Your task to perform on an android device: change timer sound Image 0: 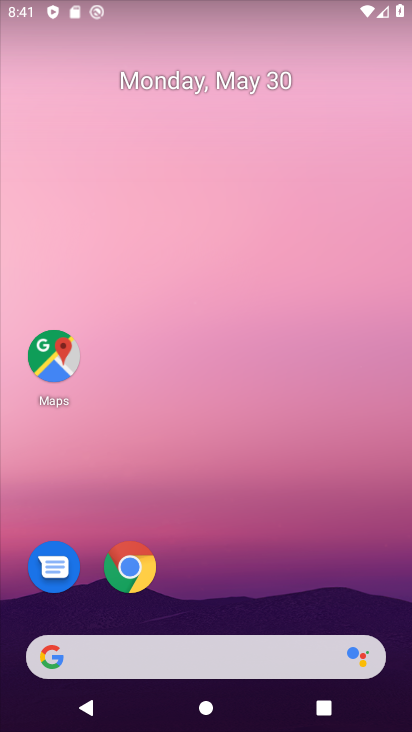
Step 0: drag from (218, 619) to (210, 53)
Your task to perform on an android device: change timer sound Image 1: 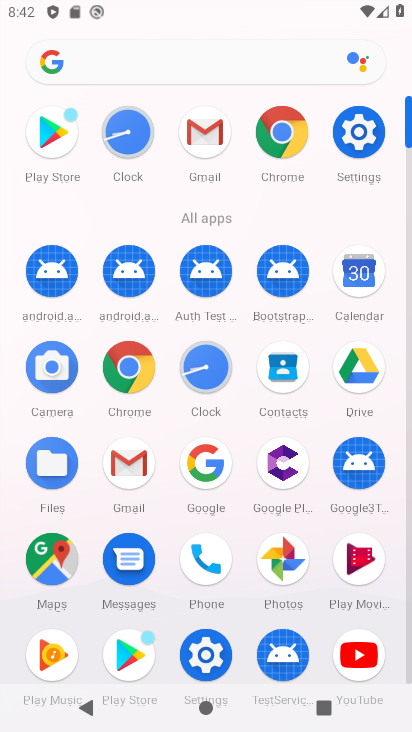
Step 1: click (122, 139)
Your task to perform on an android device: change timer sound Image 2: 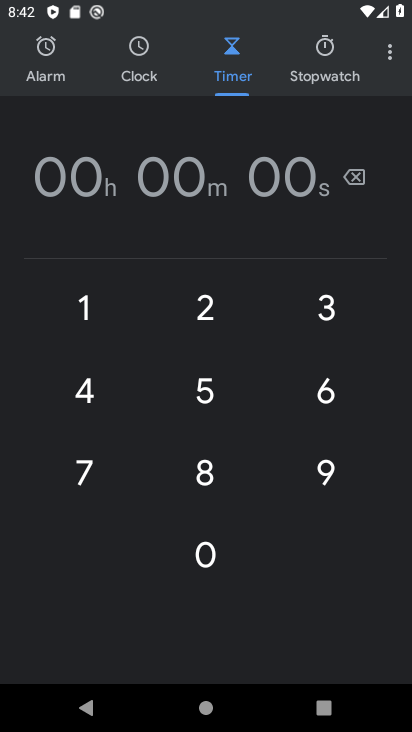
Step 2: click (404, 49)
Your task to perform on an android device: change timer sound Image 3: 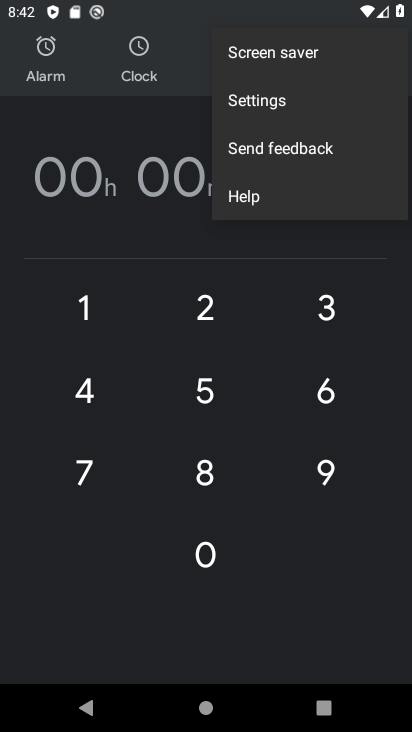
Step 3: click (349, 95)
Your task to perform on an android device: change timer sound Image 4: 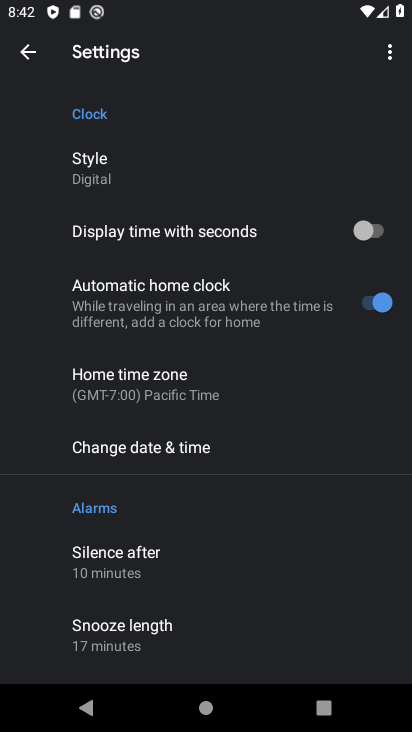
Step 4: drag from (186, 607) to (215, 169)
Your task to perform on an android device: change timer sound Image 5: 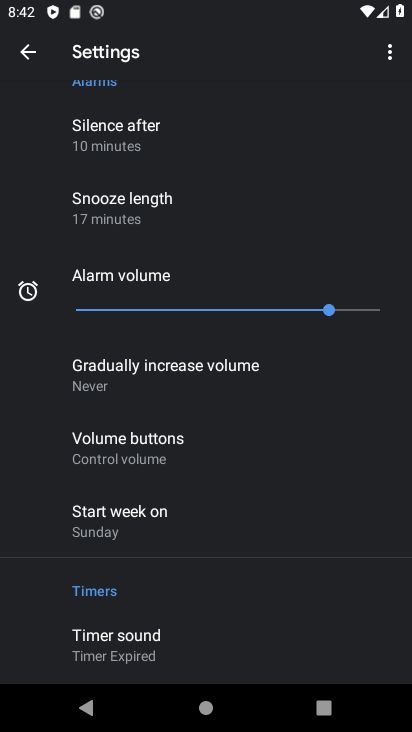
Step 5: click (155, 644)
Your task to perform on an android device: change timer sound Image 6: 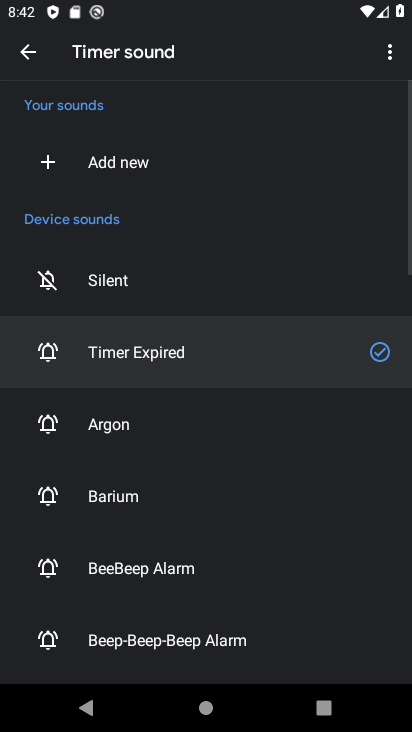
Step 6: click (248, 421)
Your task to perform on an android device: change timer sound Image 7: 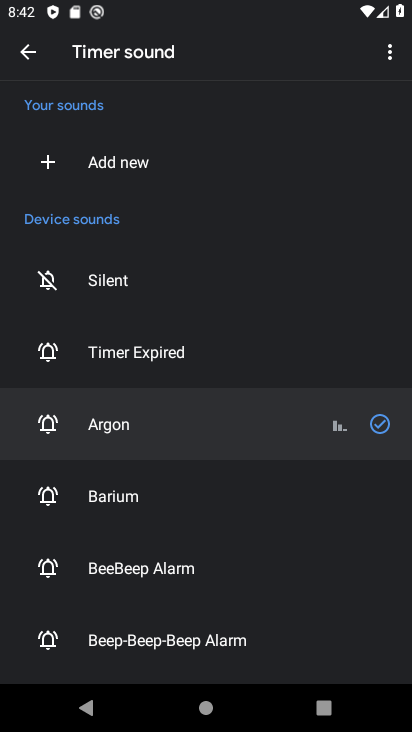
Step 7: task complete